Your task to perform on an android device: open app "Instagram" (install if not already installed) and enter user name: "nobler@yahoo.com" and password: "foraging" Image 0: 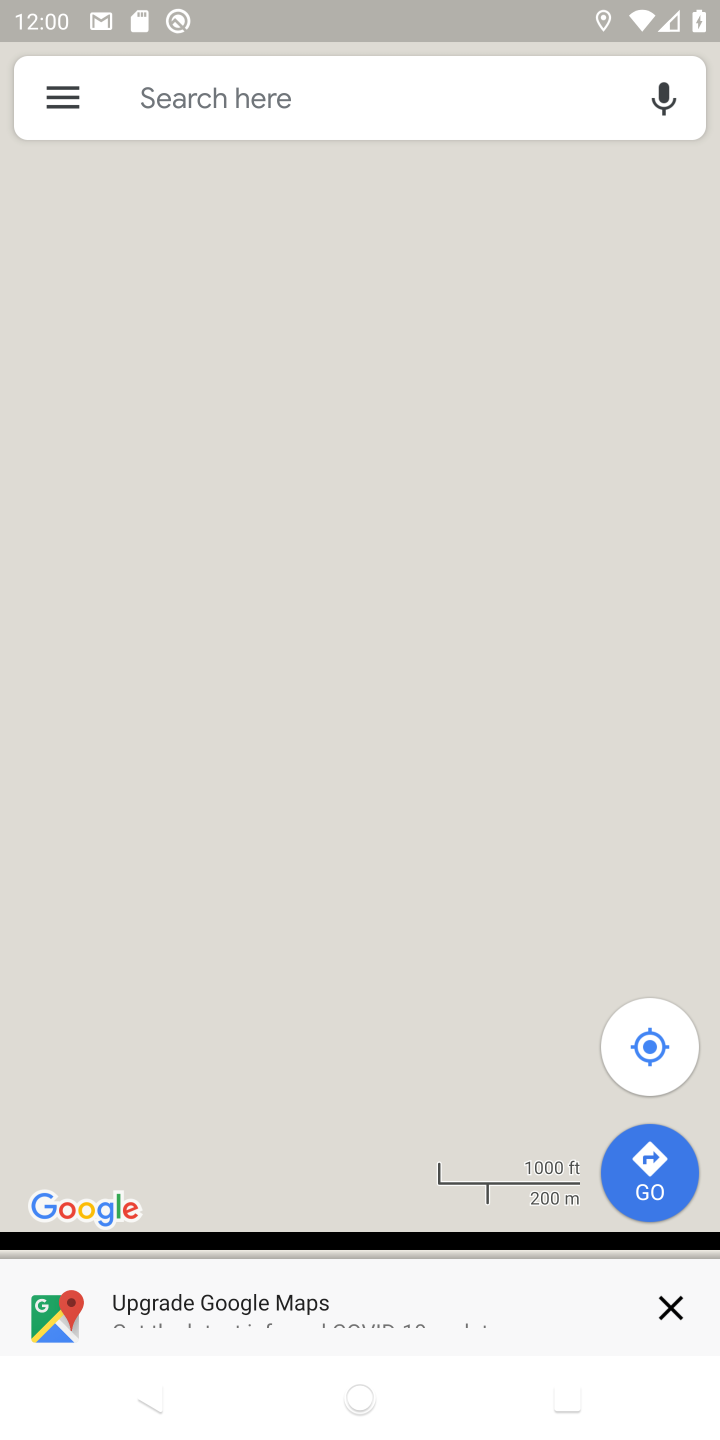
Step 0: press home button
Your task to perform on an android device: open app "Instagram" (install if not already installed) and enter user name: "nobler@yahoo.com" and password: "foraging" Image 1: 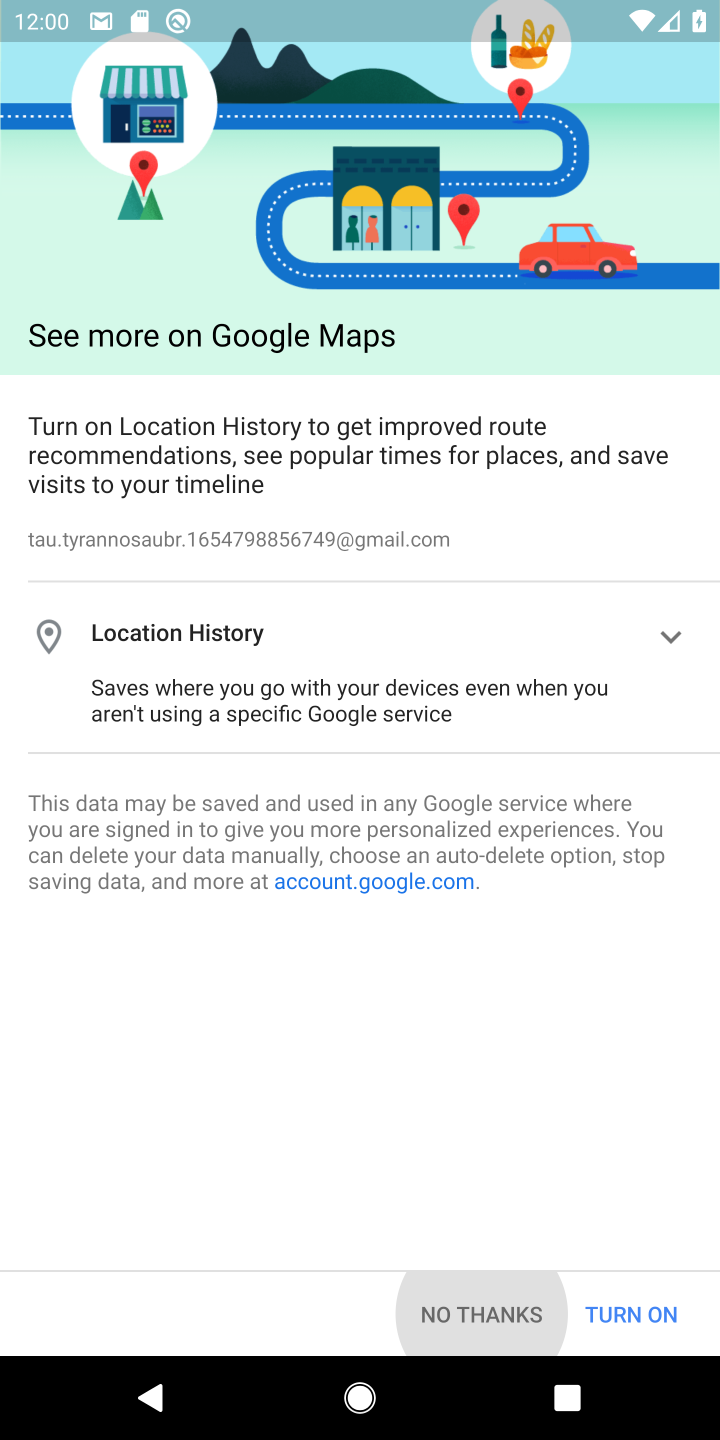
Step 1: press home button
Your task to perform on an android device: open app "Instagram" (install if not already installed) and enter user name: "nobler@yahoo.com" and password: "foraging" Image 2: 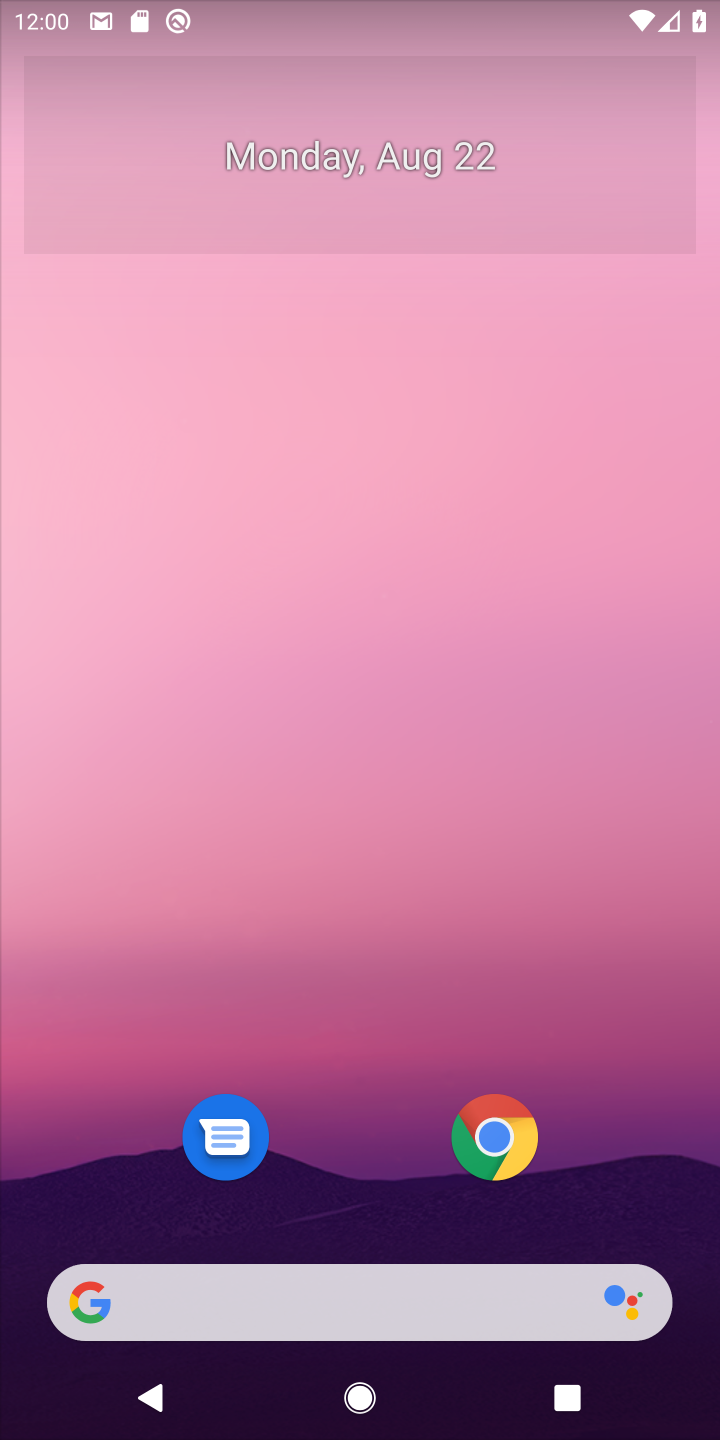
Step 2: drag from (409, 1228) to (397, 123)
Your task to perform on an android device: open app "Instagram" (install if not already installed) and enter user name: "nobler@yahoo.com" and password: "foraging" Image 3: 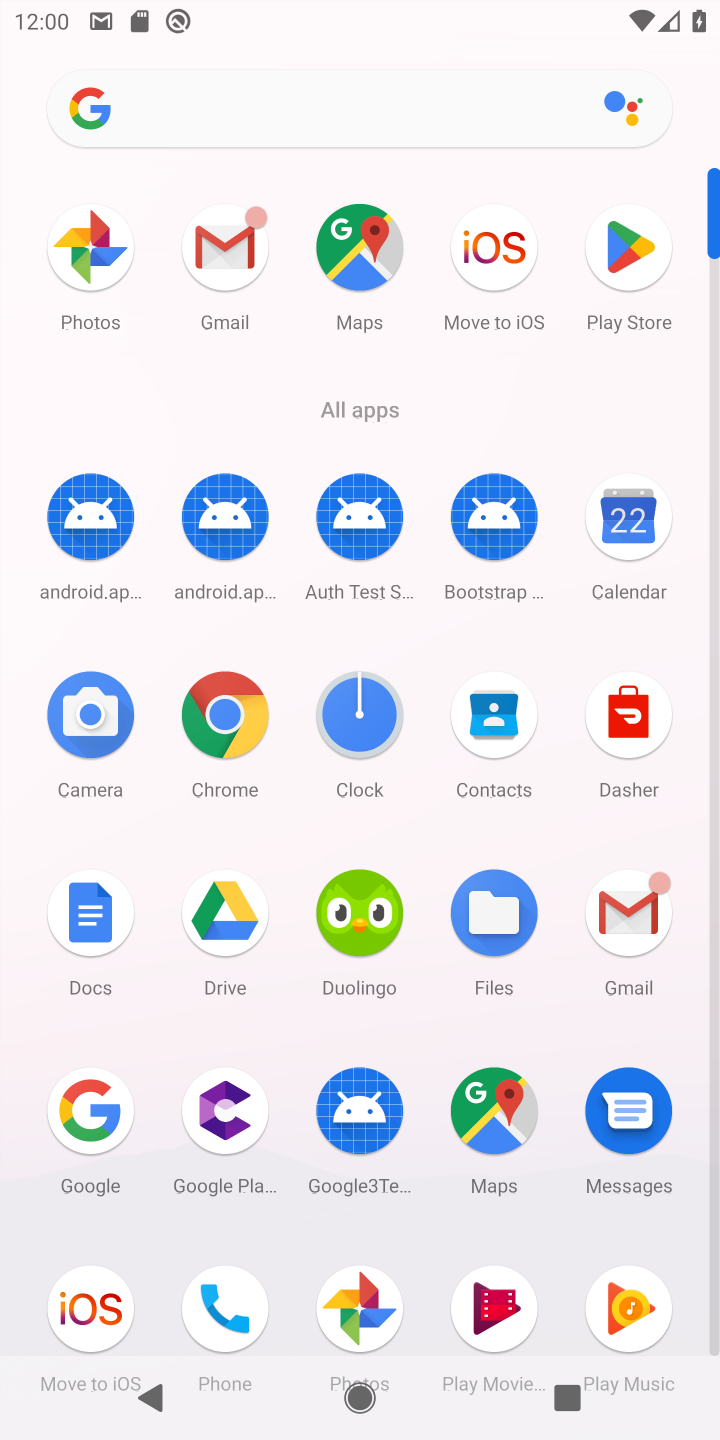
Step 3: drag from (554, 1077) to (543, 537)
Your task to perform on an android device: open app "Instagram" (install if not already installed) and enter user name: "nobler@yahoo.com" and password: "foraging" Image 4: 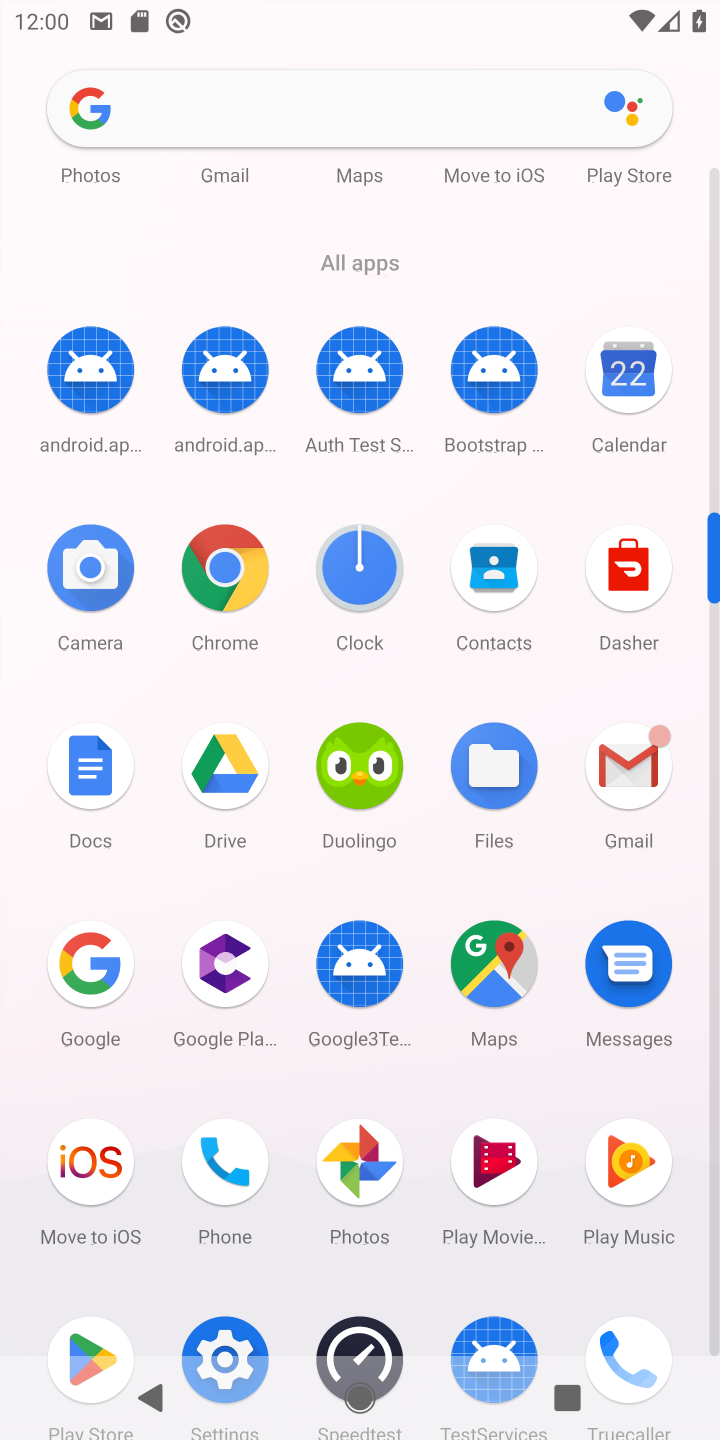
Step 4: drag from (289, 1228) to (276, 519)
Your task to perform on an android device: open app "Instagram" (install if not already installed) and enter user name: "nobler@yahoo.com" and password: "foraging" Image 5: 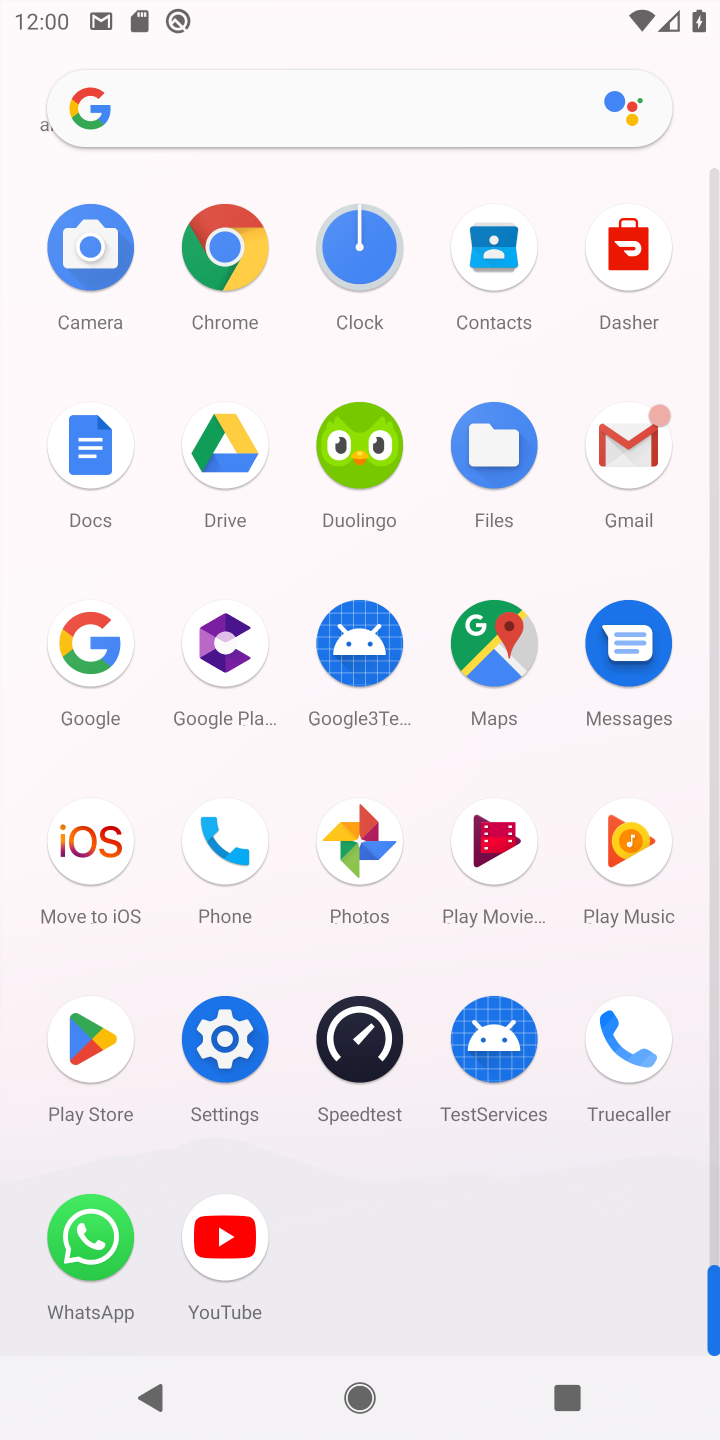
Step 5: click (96, 1037)
Your task to perform on an android device: open app "Instagram" (install if not already installed) and enter user name: "nobler@yahoo.com" and password: "foraging" Image 6: 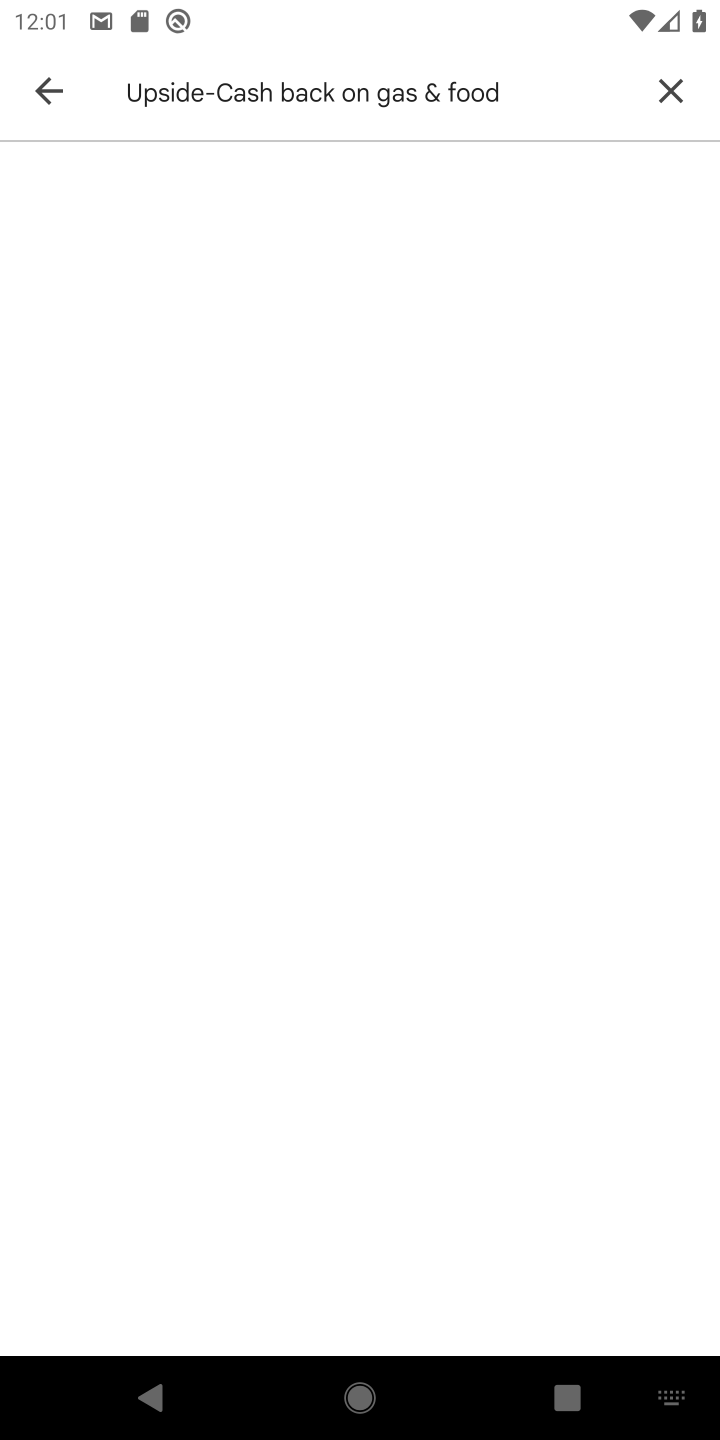
Step 6: click (664, 89)
Your task to perform on an android device: open app "Instagram" (install if not already installed) and enter user name: "nobler@yahoo.com" and password: "foraging" Image 7: 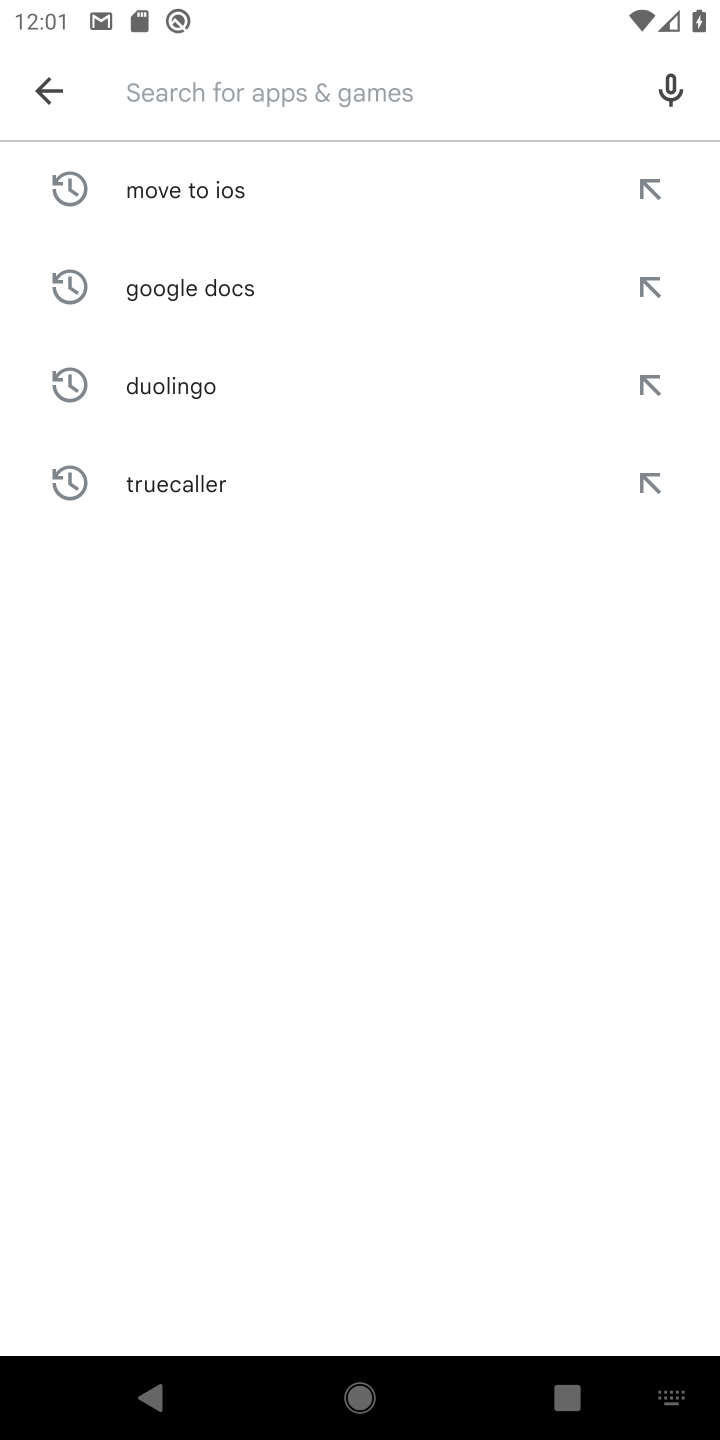
Step 7: type "instagram"
Your task to perform on an android device: open app "Instagram" (install if not already installed) and enter user name: "nobler@yahoo.com" and password: "foraging" Image 8: 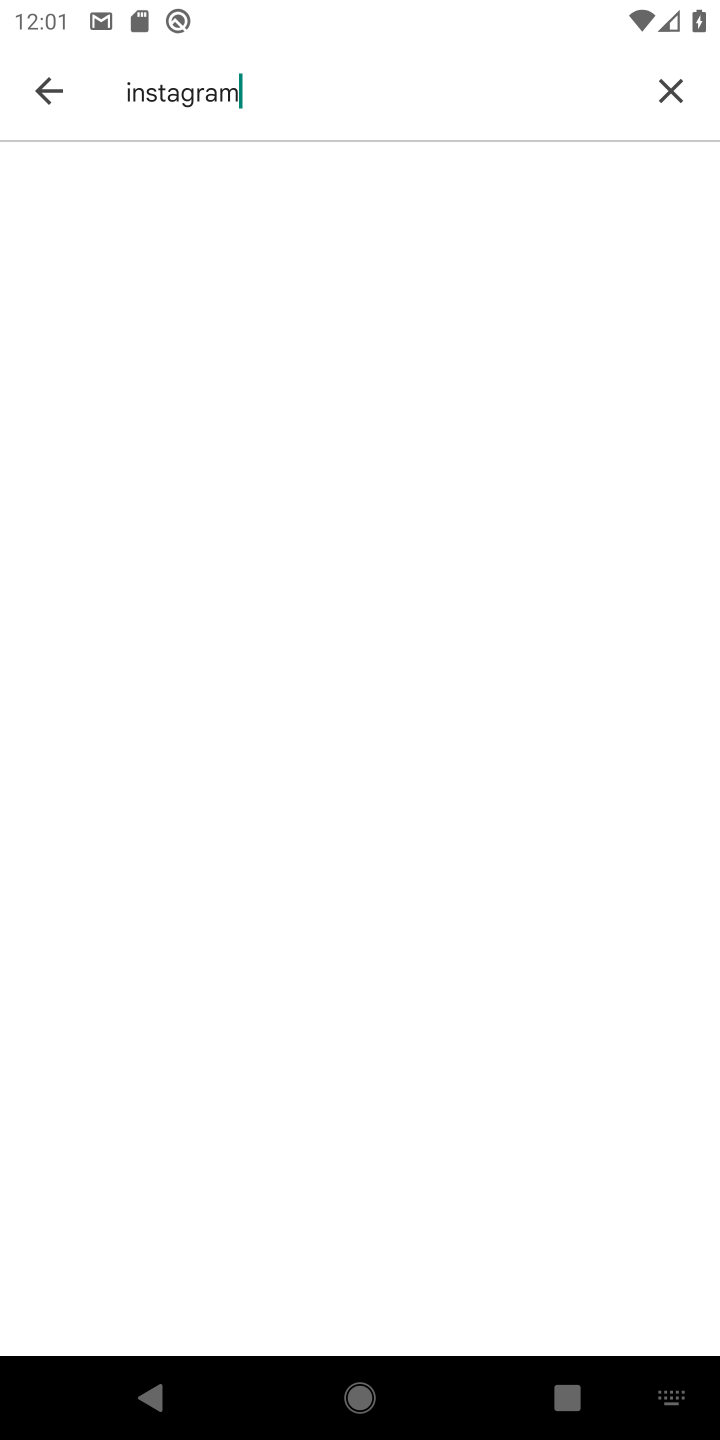
Step 8: task complete